Your task to perform on an android device: Open Google Maps and go to "Timeline" Image 0: 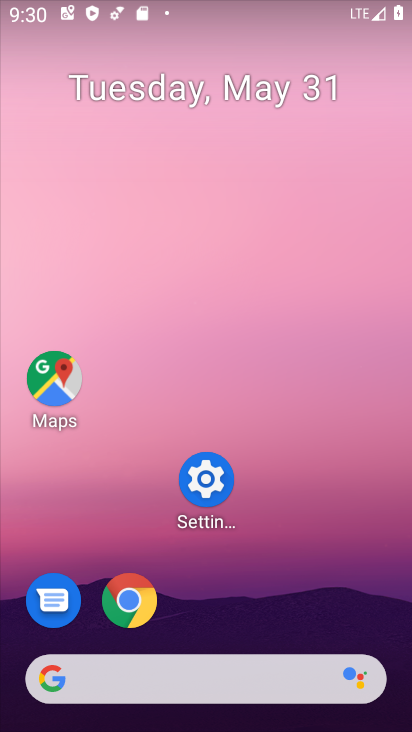
Step 0: press home button
Your task to perform on an android device: Open Google Maps and go to "Timeline" Image 1: 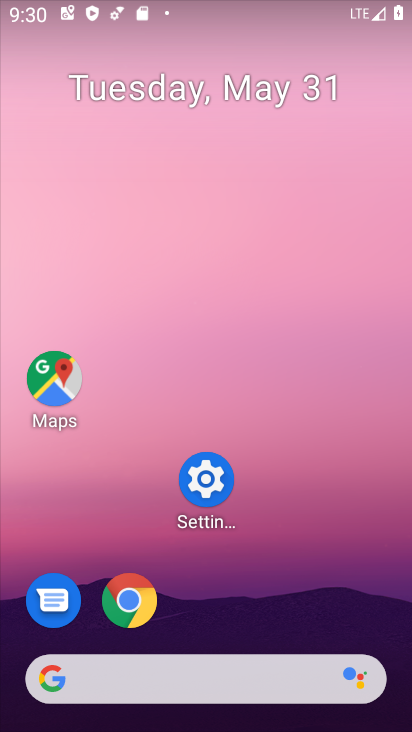
Step 1: drag from (231, 706) to (289, 374)
Your task to perform on an android device: Open Google Maps and go to "Timeline" Image 2: 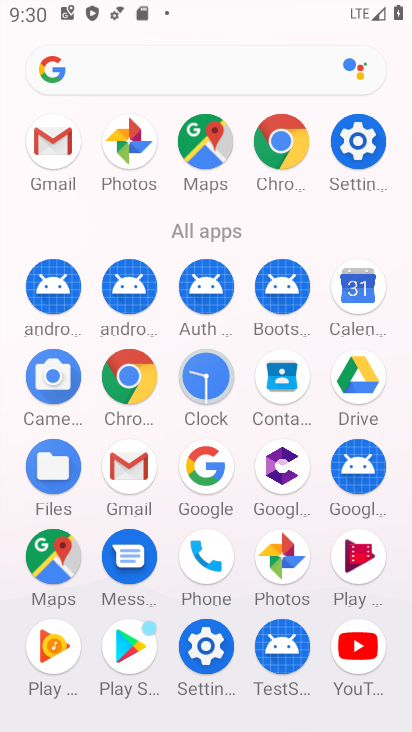
Step 2: click (193, 143)
Your task to perform on an android device: Open Google Maps and go to "Timeline" Image 3: 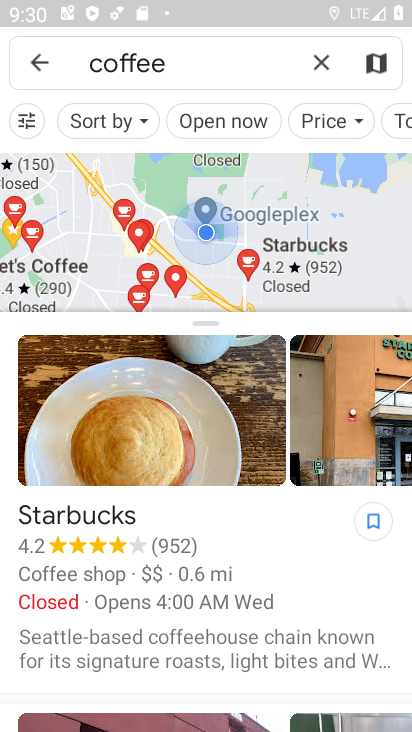
Step 3: click (33, 66)
Your task to perform on an android device: Open Google Maps and go to "Timeline" Image 4: 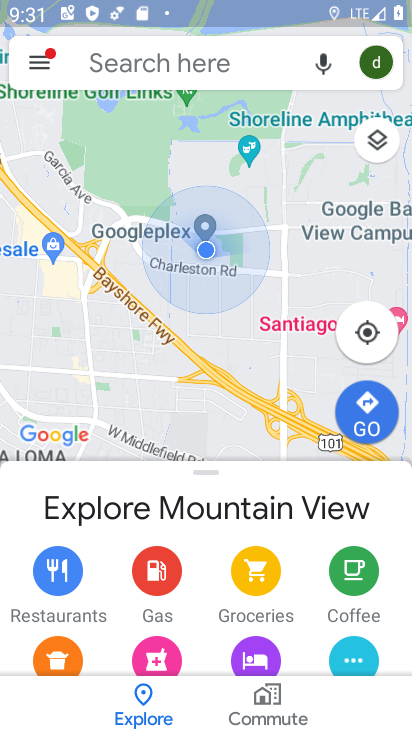
Step 4: click (39, 68)
Your task to perform on an android device: Open Google Maps and go to "Timeline" Image 5: 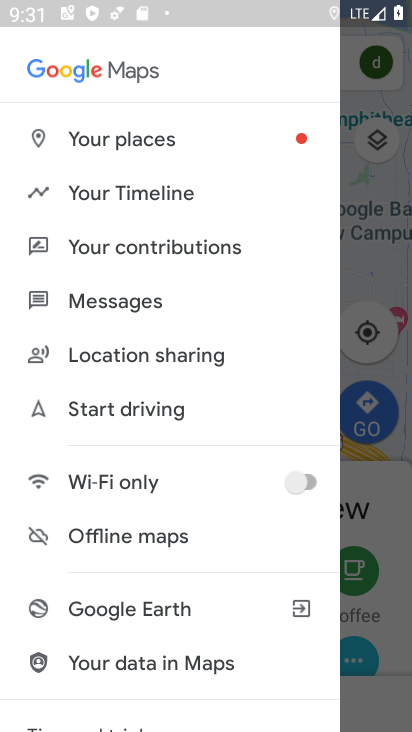
Step 5: click (112, 189)
Your task to perform on an android device: Open Google Maps and go to "Timeline" Image 6: 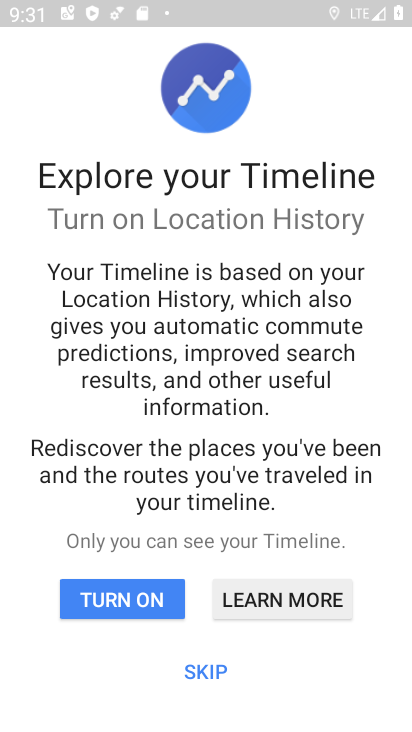
Step 6: click (193, 666)
Your task to perform on an android device: Open Google Maps and go to "Timeline" Image 7: 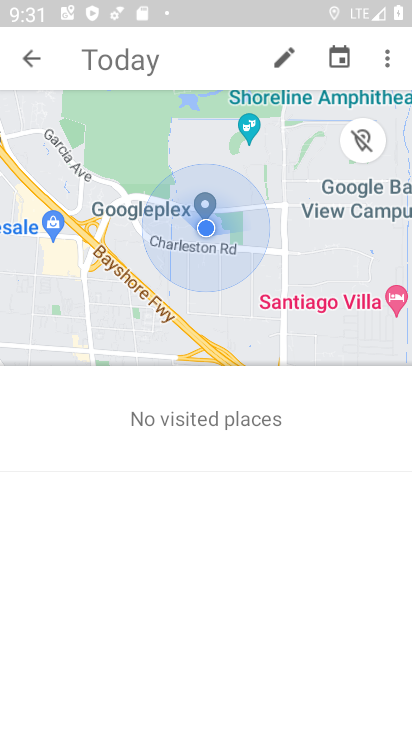
Step 7: task complete